Your task to perform on an android device: Open Chrome and go to settings Image 0: 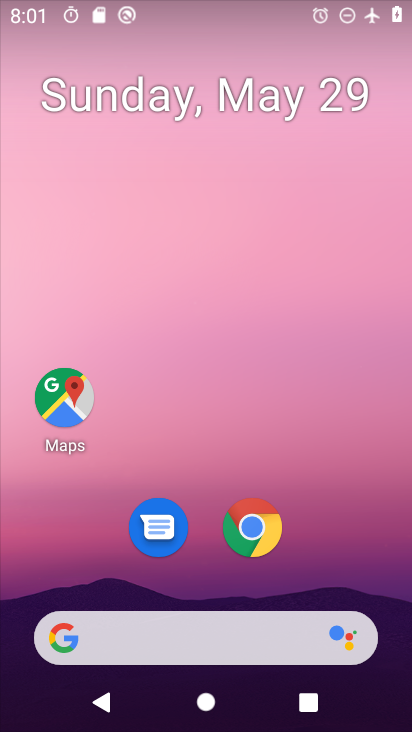
Step 0: drag from (402, 648) to (299, 80)
Your task to perform on an android device: Open Chrome and go to settings Image 1: 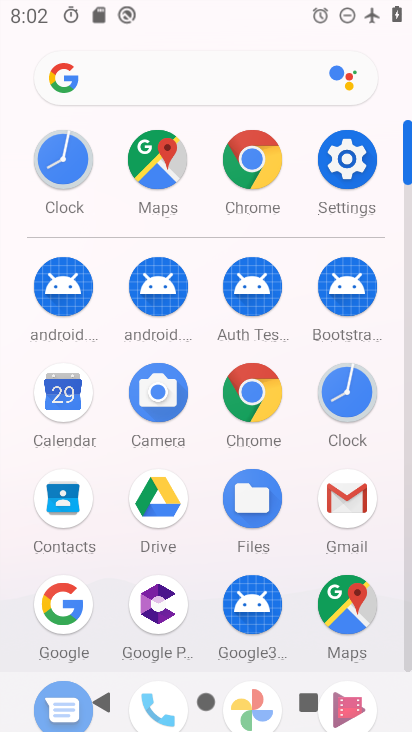
Step 1: click (359, 159)
Your task to perform on an android device: Open Chrome and go to settings Image 2: 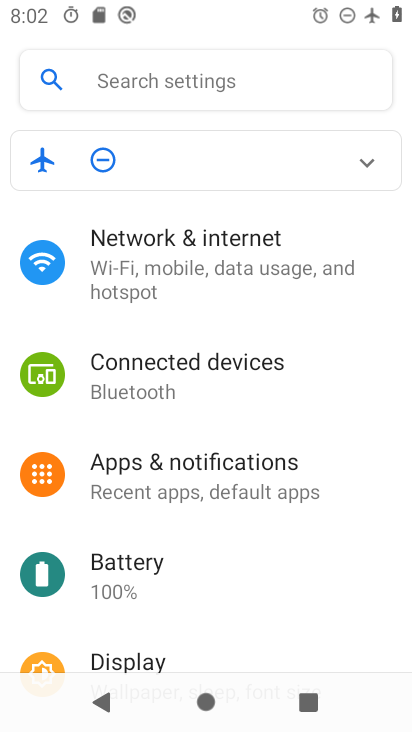
Step 2: press home button
Your task to perform on an android device: Open Chrome and go to settings Image 3: 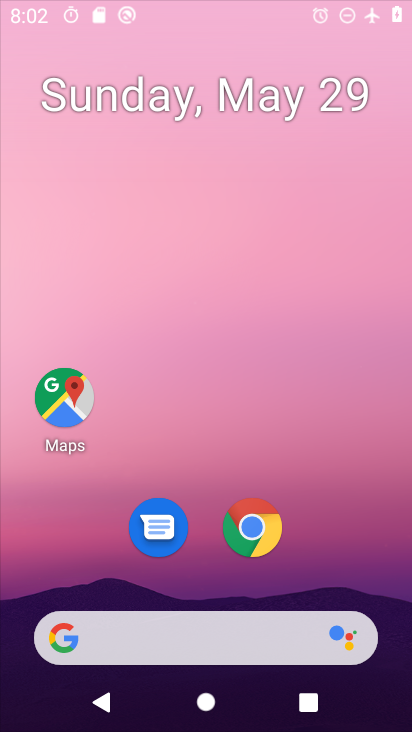
Step 3: drag from (223, 597) to (223, 10)
Your task to perform on an android device: Open Chrome and go to settings Image 4: 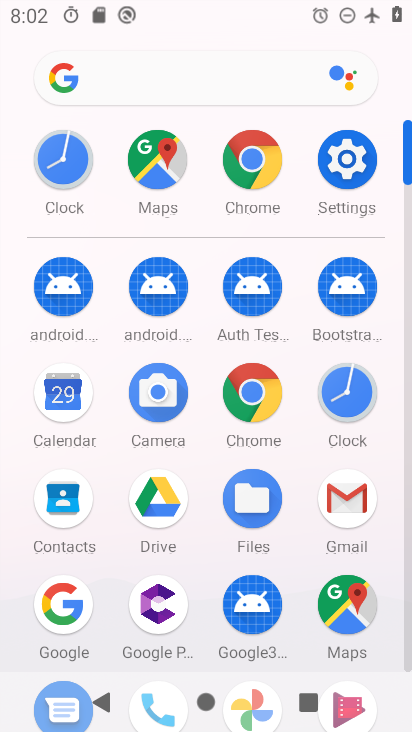
Step 4: click (260, 182)
Your task to perform on an android device: Open Chrome and go to settings Image 5: 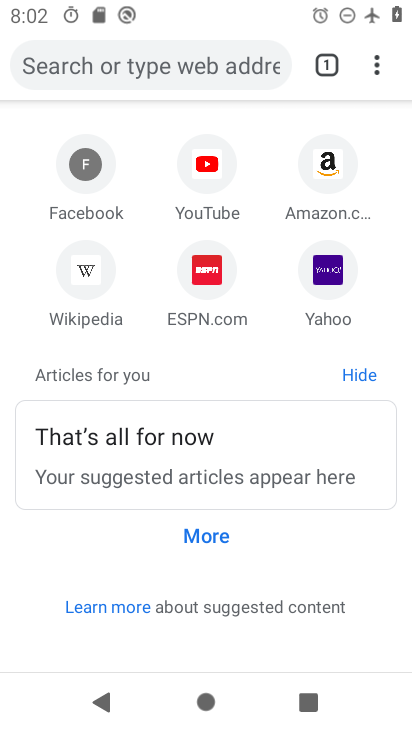
Step 5: click (374, 70)
Your task to perform on an android device: Open Chrome and go to settings Image 6: 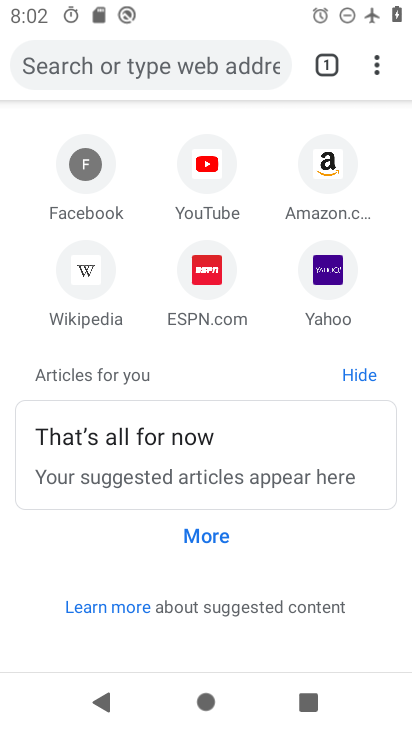
Step 6: click (375, 52)
Your task to perform on an android device: Open Chrome and go to settings Image 7: 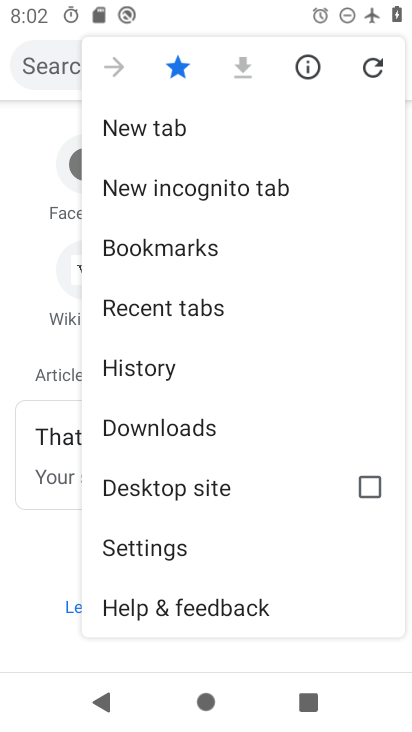
Step 7: click (94, 557)
Your task to perform on an android device: Open Chrome and go to settings Image 8: 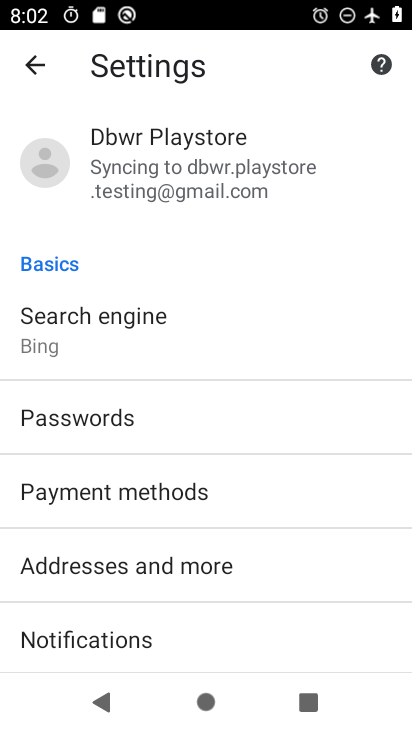
Step 8: task complete